Your task to perform on an android device: turn on location history Image 0: 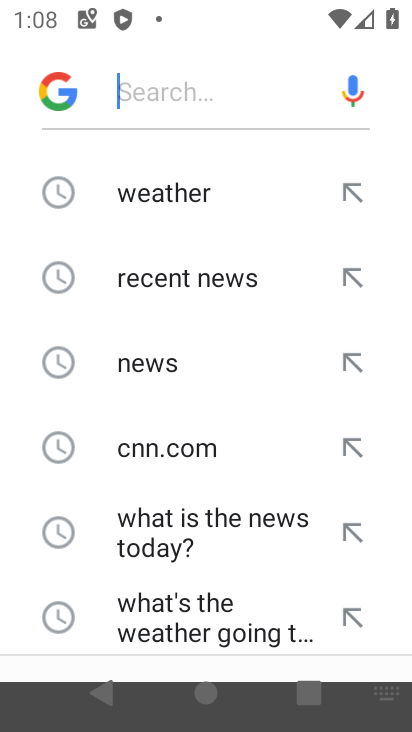
Step 0: press home button
Your task to perform on an android device: turn on location history Image 1: 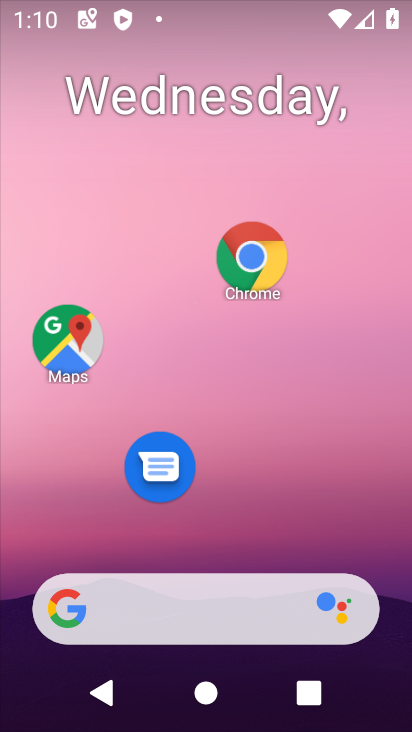
Step 1: drag from (371, 448) to (308, 142)
Your task to perform on an android device: turn on location history Image 2: 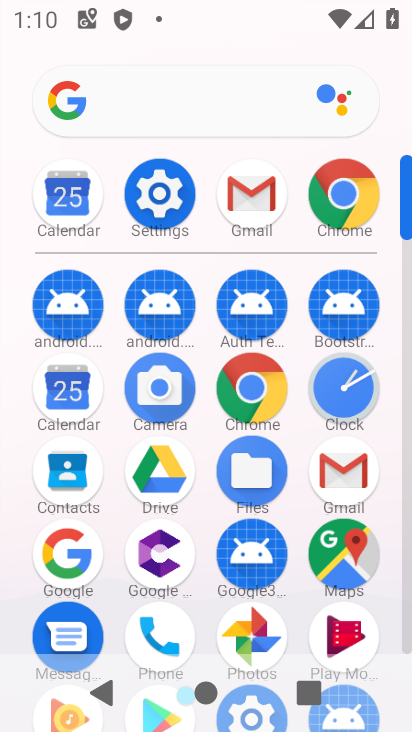
Step 2: click (150, 165)
Your task to perform on an android device: turn on location history Image 3: 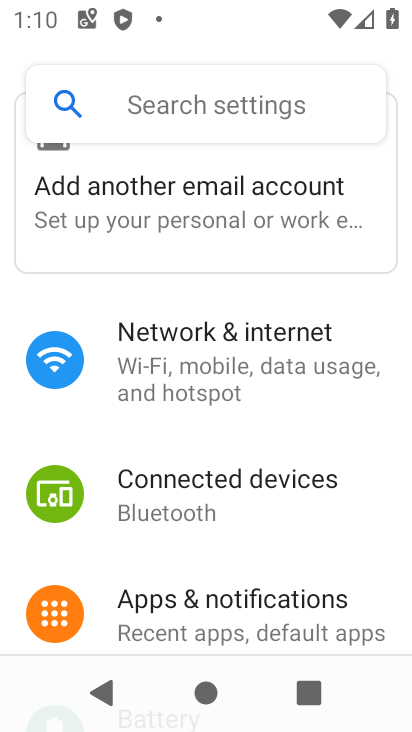
Step 3: drag from (200, 476) to (205, 51)
Your task to perform on an android device: turn on location history Image 4: 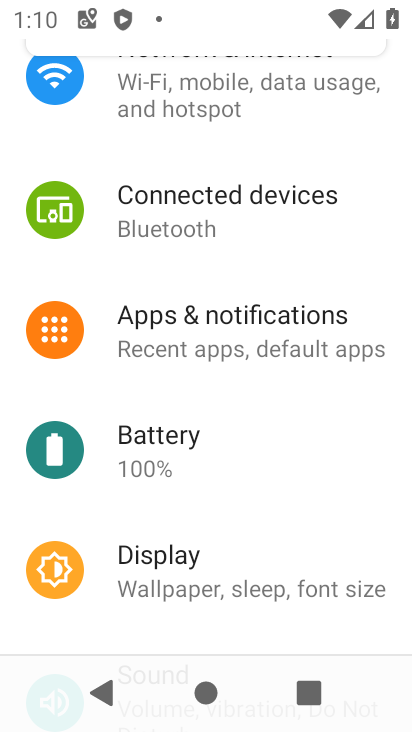
Step 4: drag from (251, 411) to (229, 99)
Your task to perform on an android device: turn on location history Image 5: 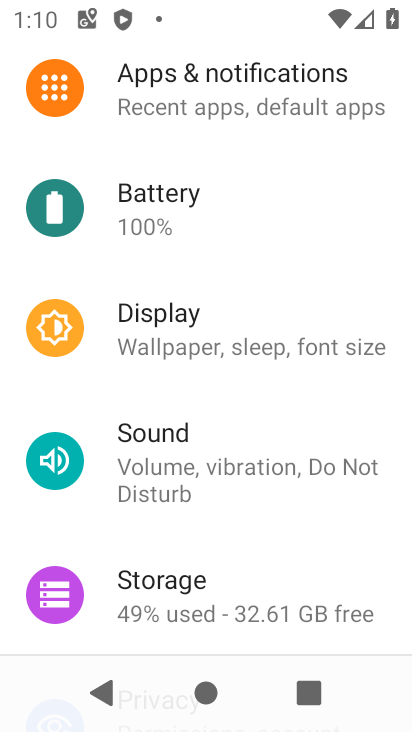
Step 5: drag from (250, 599) to (239, 164)
Your task to perform on an android device: turn on location history Image 6: 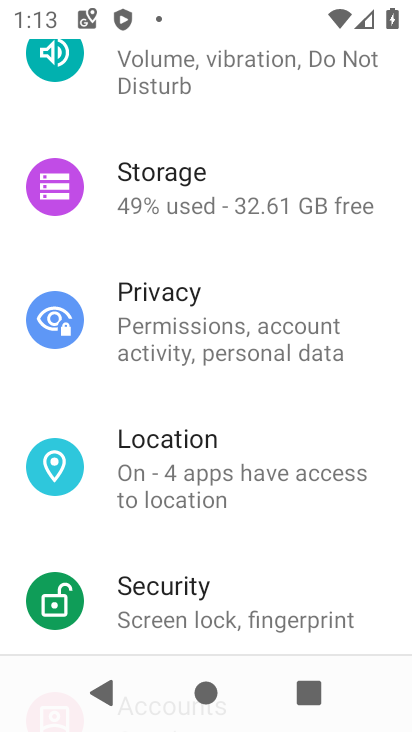
Step 6: drag from (205, 560) to (193, 296)
Your task to perform on an android device: turn on location history Image 7: 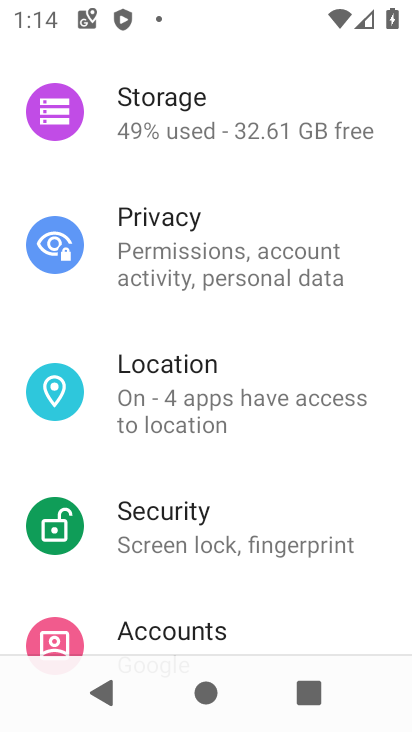
Step 7: click (144, 428)
Your task to perform on an android device: turn on location history Image 8: 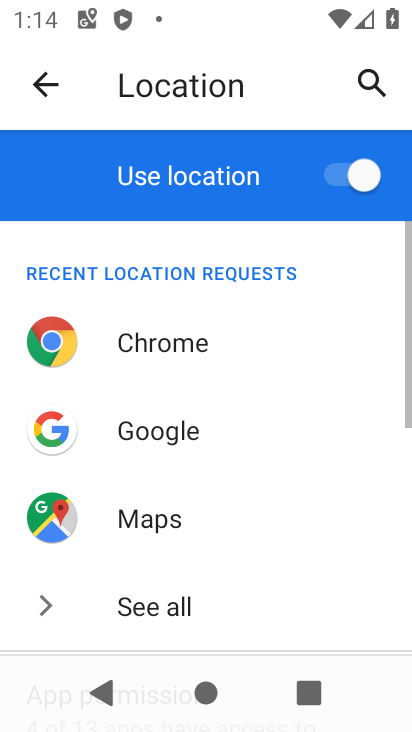
Step 8: task complete